Your task to perform on an android device: turn off notifications in google photos Image 0: 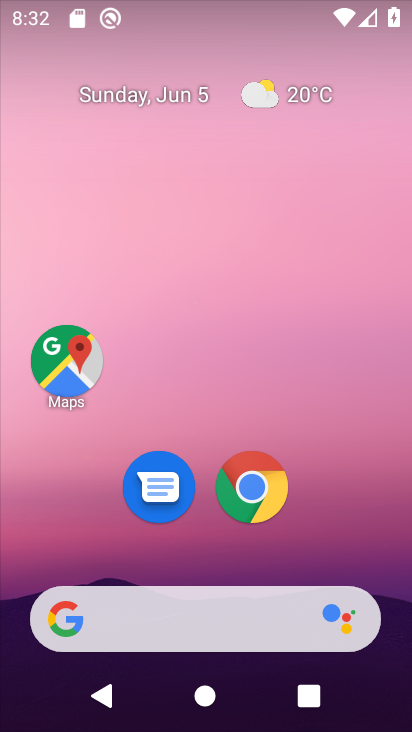
Step 0: drag from (287, 555) to (287, 264)
Your task to perform on an android device: turn off notifications in google photos Image 1: 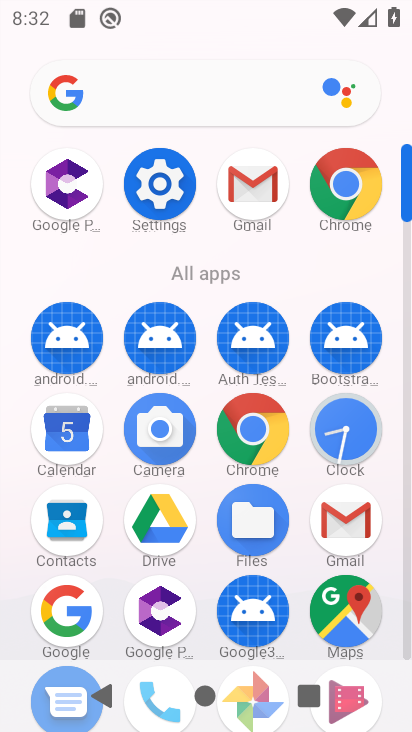
Step 1: drag from (275, 620) to (280, 352)
Your task to perform on an android device: turn off notifications in google photos Image 2: 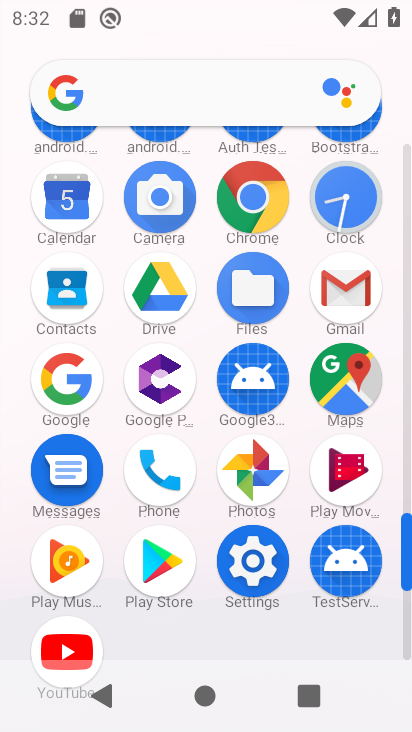
Step 2: click (249, 460)
Your task to perform on an android device: turn off notifications in google photos Image 3: 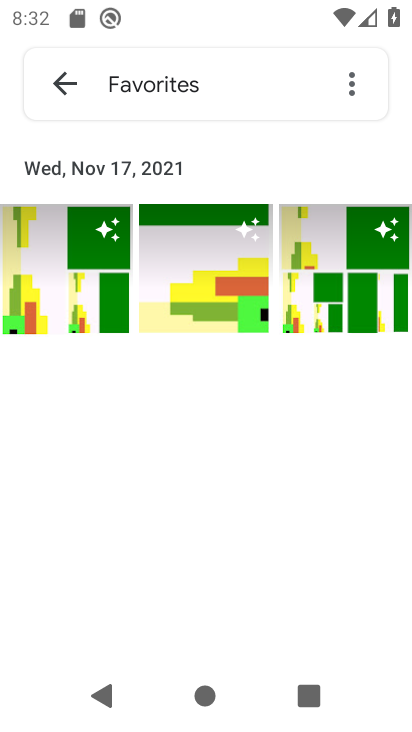
Step 3: click (60, 65)
Your task to perform on an android device: turn off notifications in google photos Image 4: 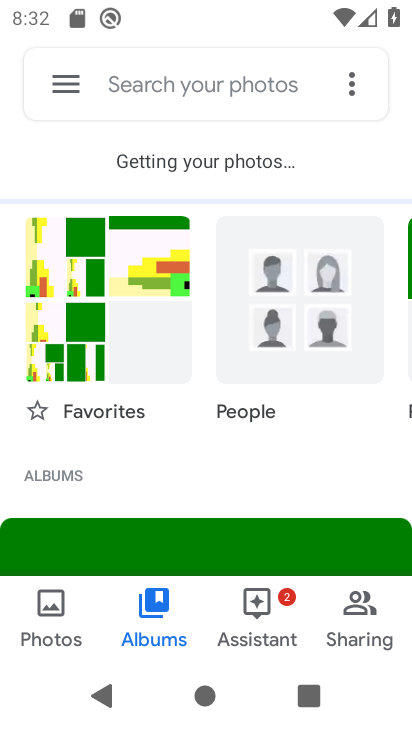
Step 4: click (77, 72)
Your task to perform on an android device: turn off notifications in google photos Image 5: 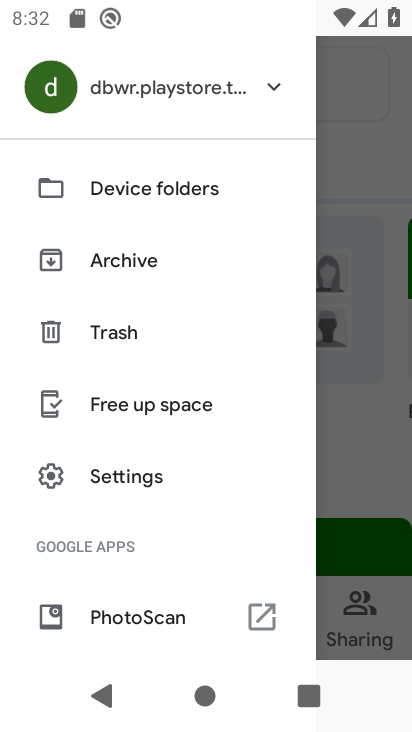
Step 5: click (127, 482)
Your task to perform on an android device: turn off notifications in google photos Image 6: 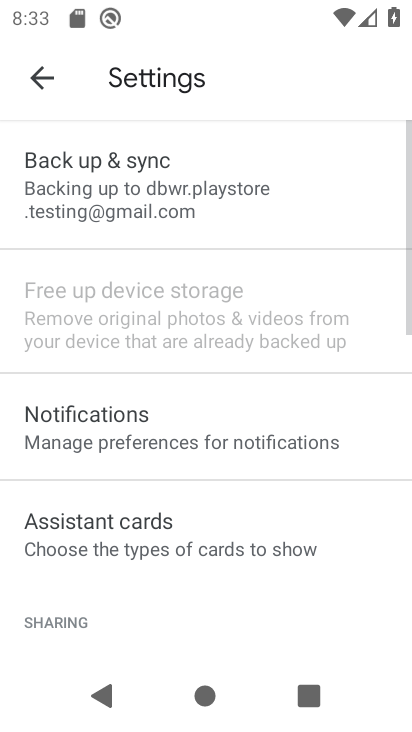
Step 6: click (148, 425)
Your task to perform on an android device: turn off notifications in google photos Image 7: 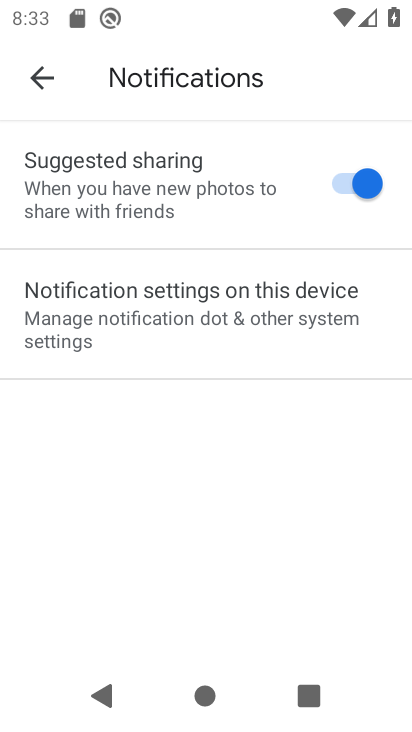
Step 7: click (286, 300)
Your task to perform on an android device: turn off notifications in google photos Image 8: 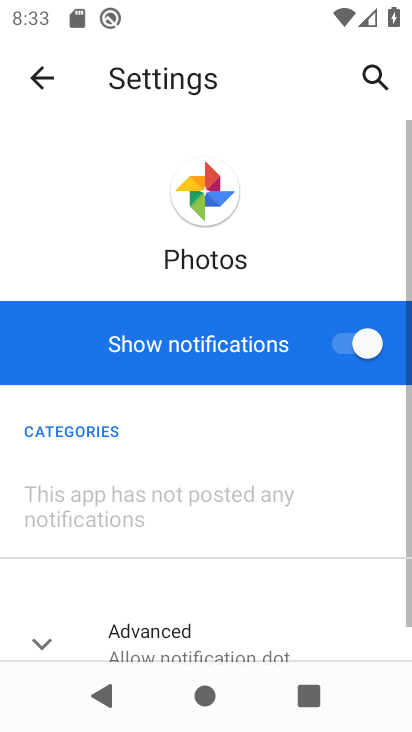
Step 8: click (335, 353)
Your task to perform on an android device: turn off notifications in google photos Image 9: 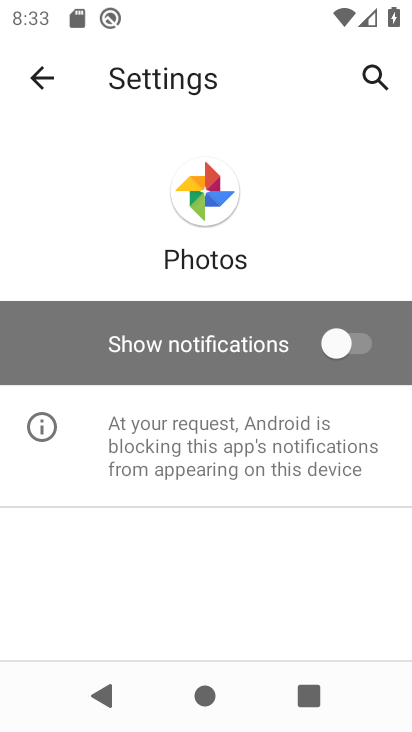
Step 9: task complete